Your task to perform on an android device: check google app version Image 0: 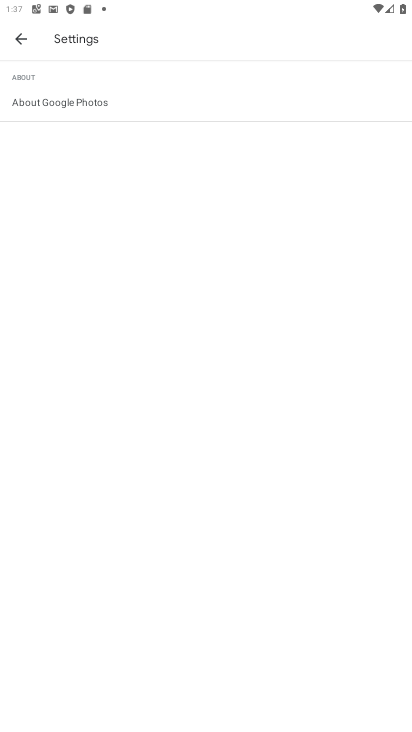
Step 0: press back button
Your task to perform on an android device: check google app version Image 1: 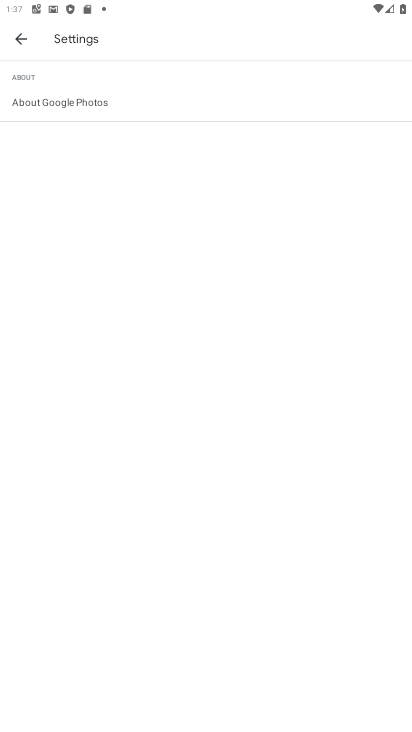
Step 1: press back button
Your task to perform on an android device: check google app version Image 2: 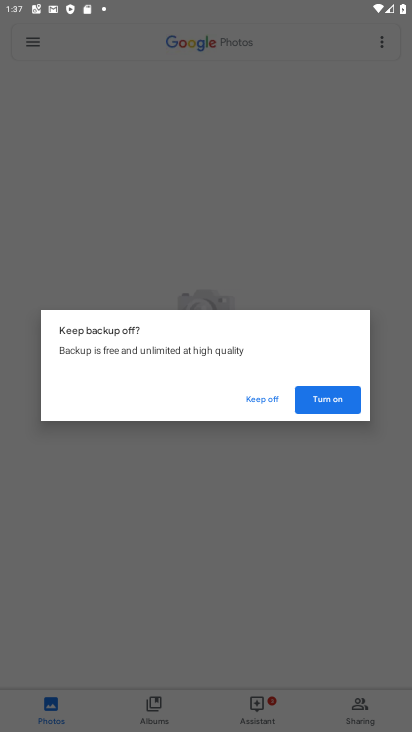
Step 2: press home button
Your task to perform on an android device: check google app version Image 3: 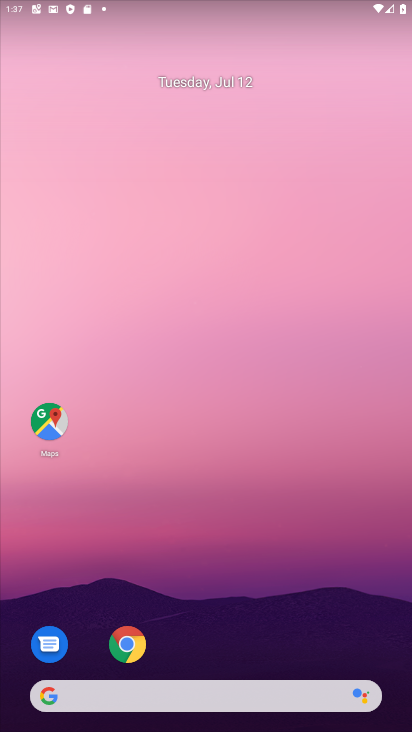
Step 3: drag from (203, 610) to (280, 56)
Your task to perform on an android device: check google app version Image 4: 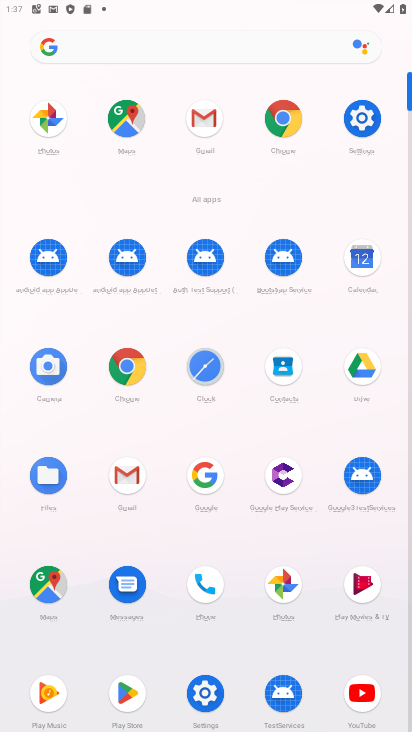
Step 4: click (195, 472)
Your task to perform on an android device: check google app version Image 5: 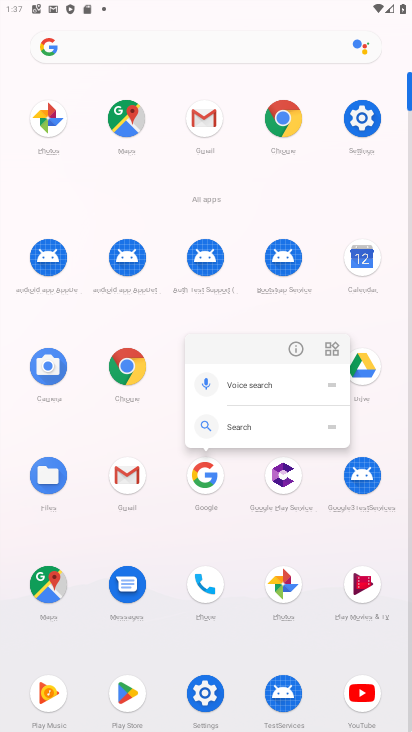
Step 5: click (303, 351)
Your task to perform on an android device: check google app version Image 6: 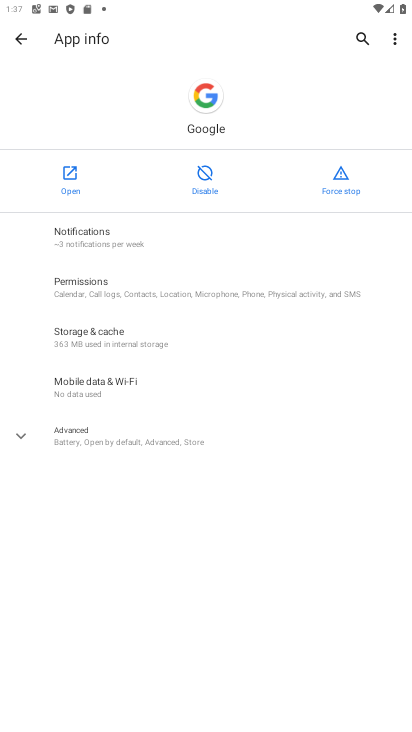
Step 6: click (131, 434)
Your task to perform on an android device: check google app version Image 7: 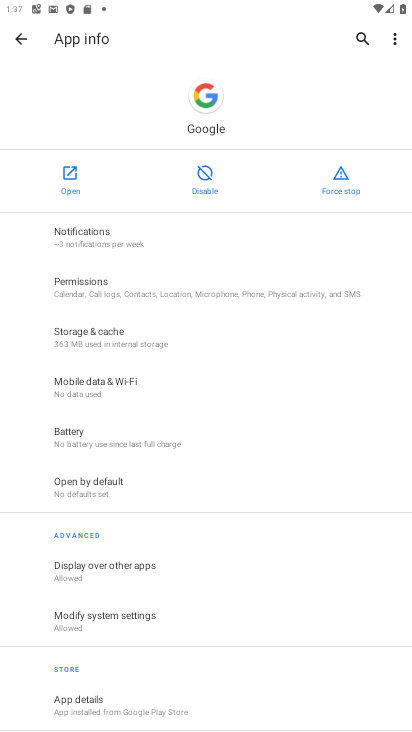
Step 7: task complete